Your task to perform on an android device: What's on my calendar tomorrow? Image 0: 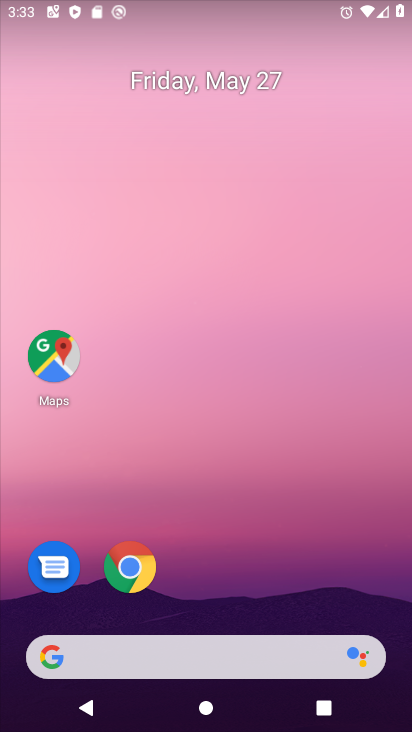
Step 0: drag from (353, 564) to (260, 92)
Your task to perform on an android device: What's on my calendar tomorrow? Image 1: 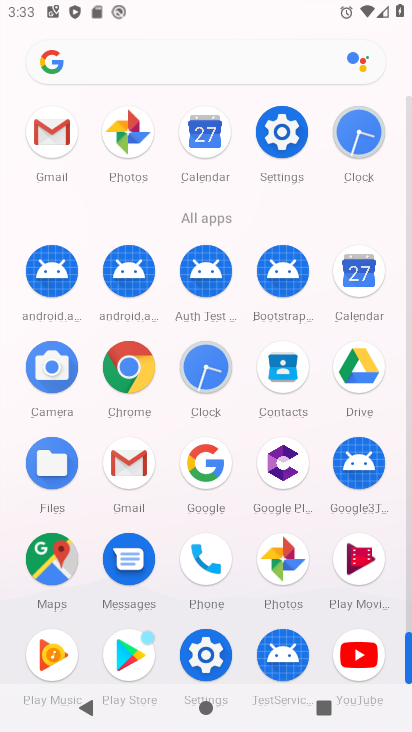
Step 1: click (359, 274)
Your task to perform on an android device: What's on my calendar tomorrow? Image 2: 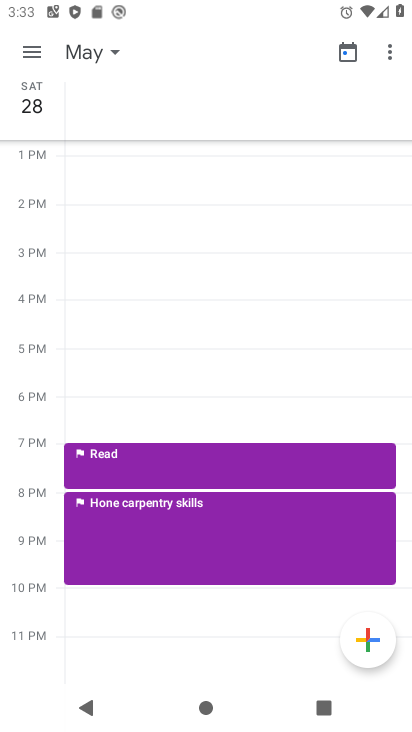
Step 2: task complete